Your task to perform on an android device: When is my next appointment? Image 0: 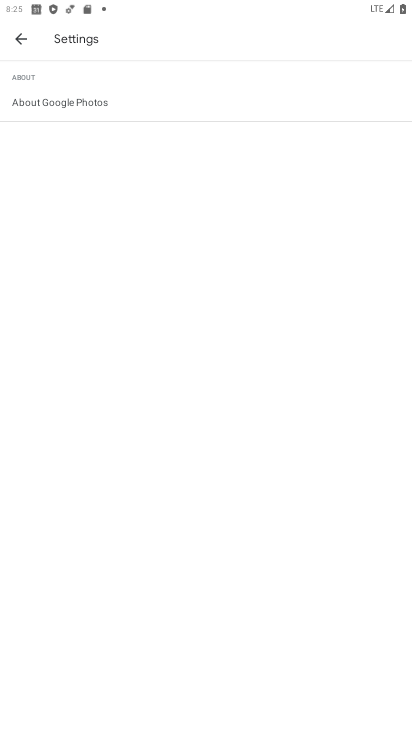
Step 0: press home button
Your task to perform on an android device: When is my next appointment? Image 1: 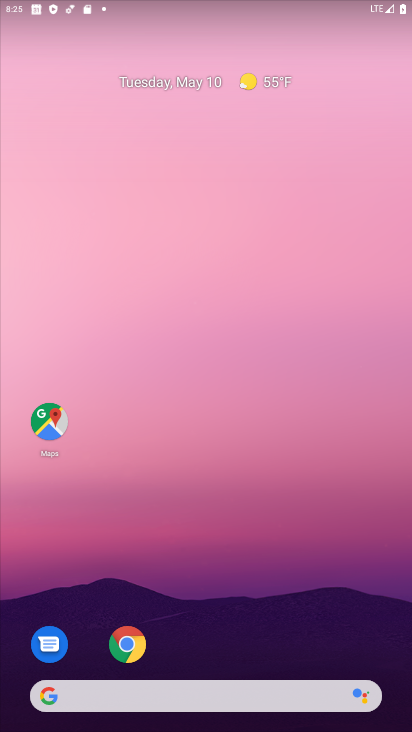
Step 1: drag from (250, 658) to (350, 199)
Your task to perform on an android device: When is my next appointment? Image 2: 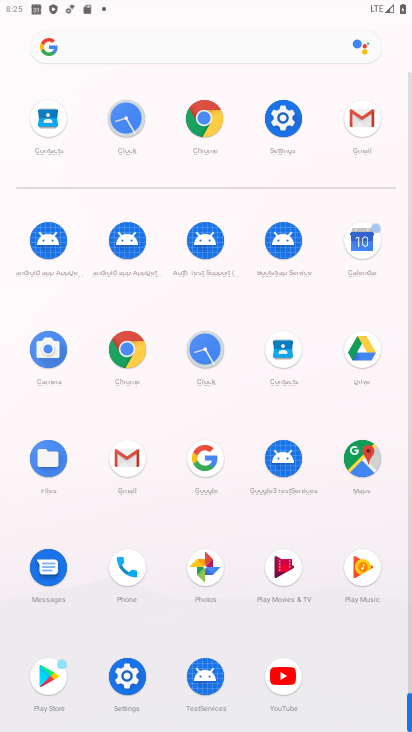
Step 2: drag from (229, 484) to (288, 217)
Your task to perform on an android device: When is my next appointment? Image 3: 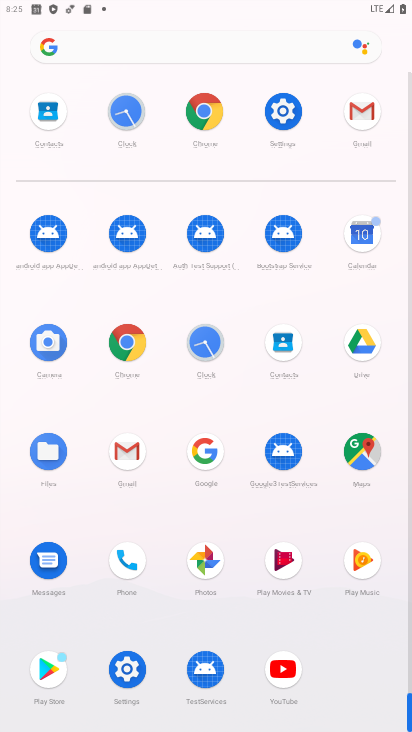
Step 3: click (370, 235)
Your task to perform on an android device: When is my next appointment? Image 4: 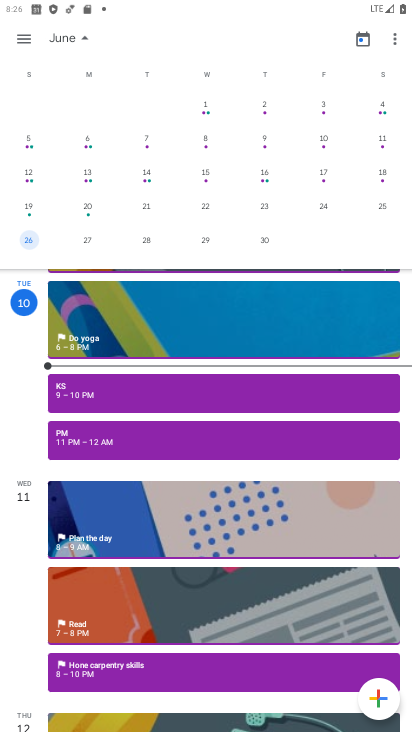
Step 4: task complete